Your task to perform on an android device: Open Youtube and go to "Your channel" Image 0: 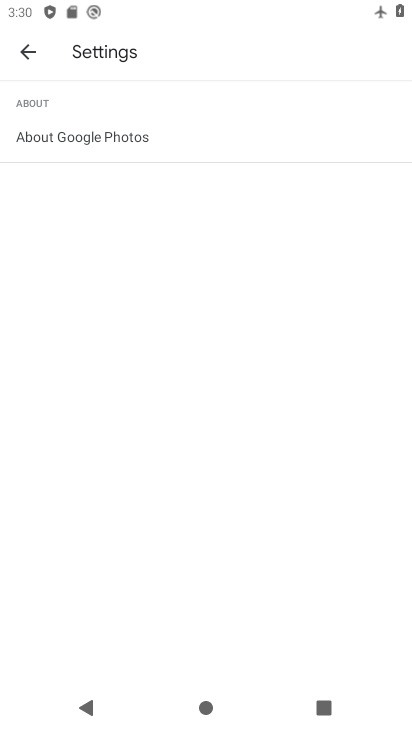
Step 0: press back button
Your task to perform on an android device: Open Youtube and go to "Your channel" Image 1: 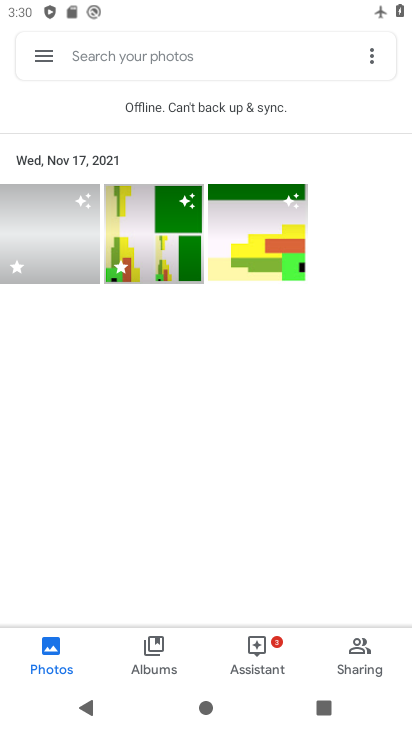
Step 1: press back button
Your task to perform on an android device: Open Youtube and go to "Your channel" Image 2: 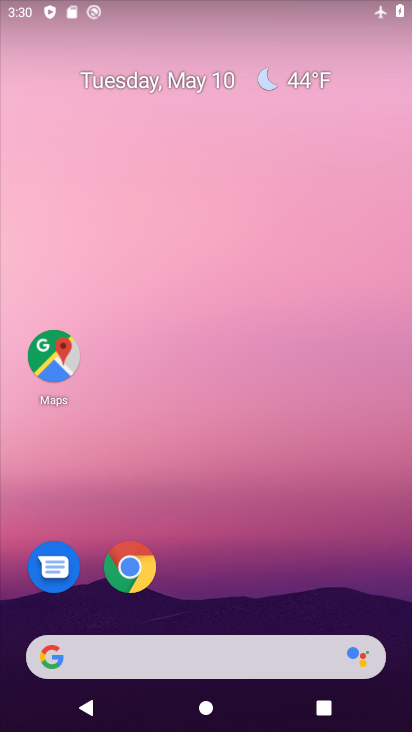
Step 2: drag from (255, 553) to (183, 56)
Your task to perform on an android device: Open Youtube and go to "Your channel" Image 3: 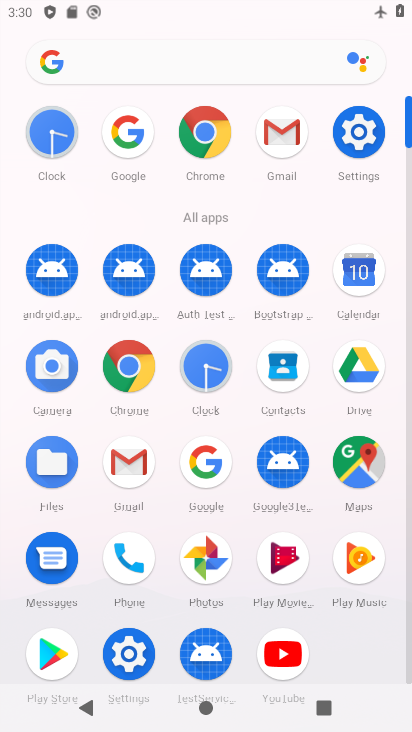
Step 3: drag from (236, 565) to (244, 290)
Your task to perform on an android device: Open Youtube and go to "Your channel" Image 4: 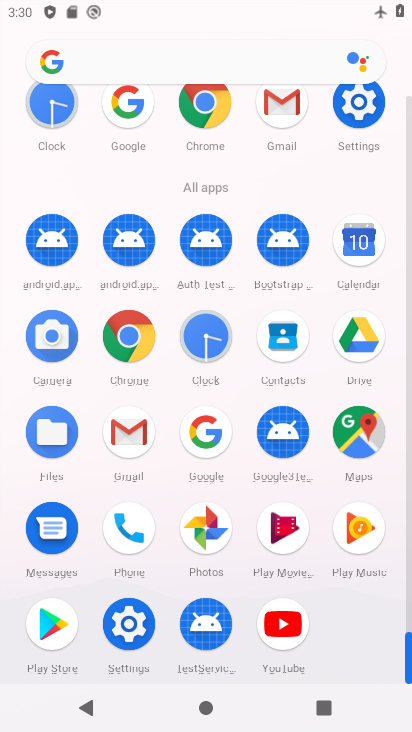
Step 4: click (280, 623)
Your task to perform on an android device: Open Youtube and go to "Your channel" Image 5: 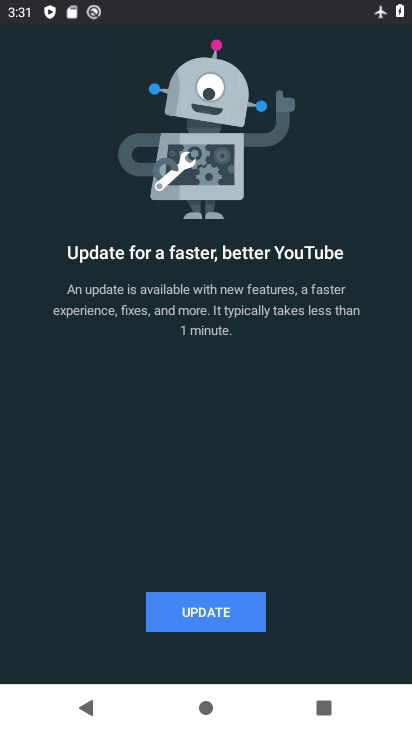
Step 5: click (211, 606)
Your task to perform on an android device: Open Youtube and go to "Your channel" Image 6: 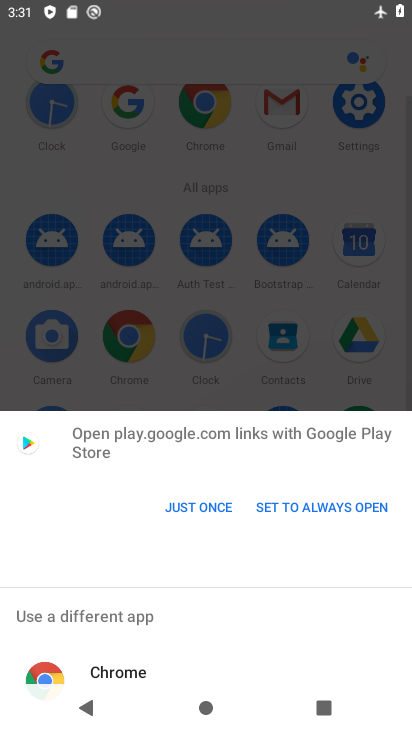
Step 6: click (200, 508)
Your task to perform on an android device: Open Youtube and go to "Your channel" Image 7: 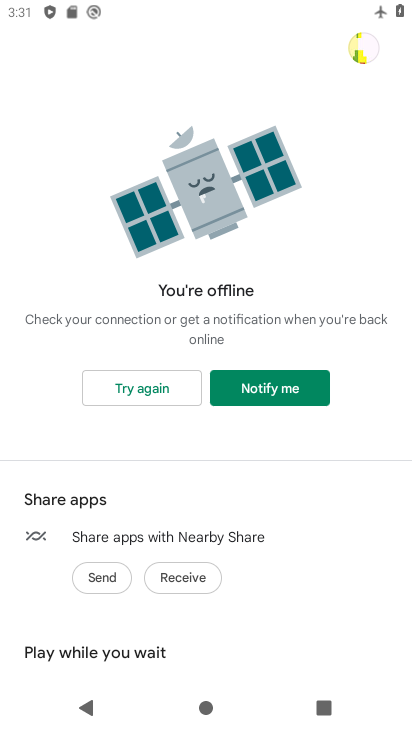
Step 7: click (134, 397)
Your task to perform on an android device: Open Youtube and go to "Your channel" Image 8: 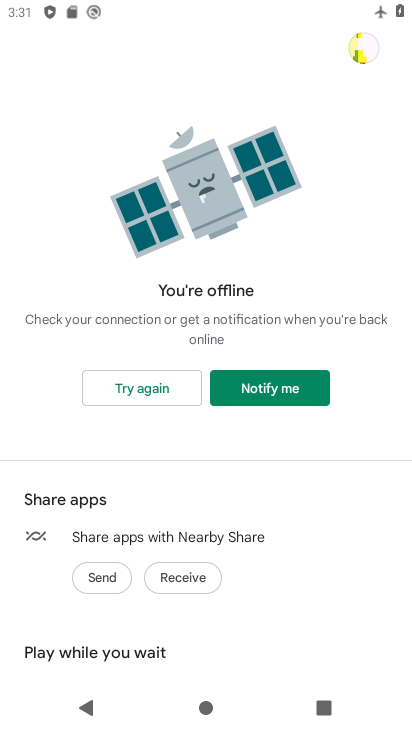
Step 8: press back button
Your task to perform on an android device: Open Youtube and go to "Your channel" Image 9: 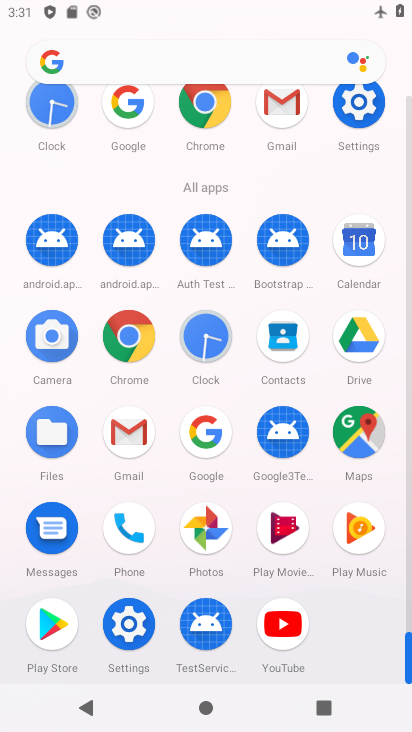
Step 9: click (356, 104)
Your task to perform on an android device: Open Youtube and go to "Your channel" Image 10: 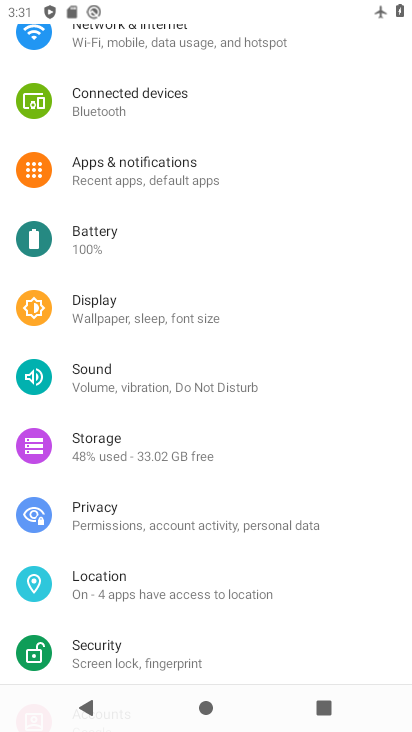
Step 10: drag from (157, 136) to (200, 267)
Your task to perform on an android device: Open Youtube and go to "Your channel" Image 11: 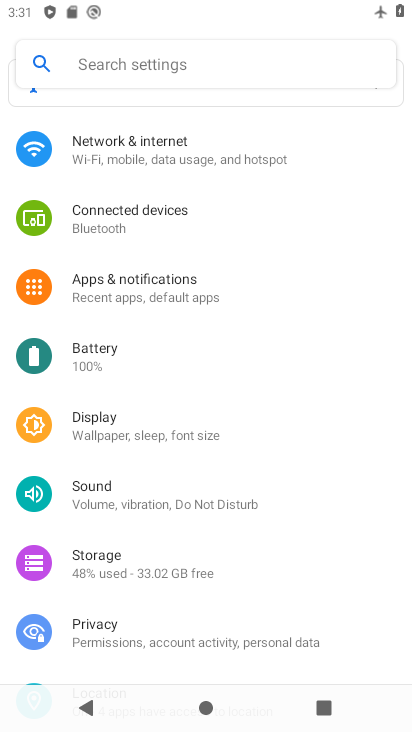
Step 11: drag from (198, 143) to (203, 319)
Your task to perform on an android device: Open Youtube and go to "Your channel" Image 12: 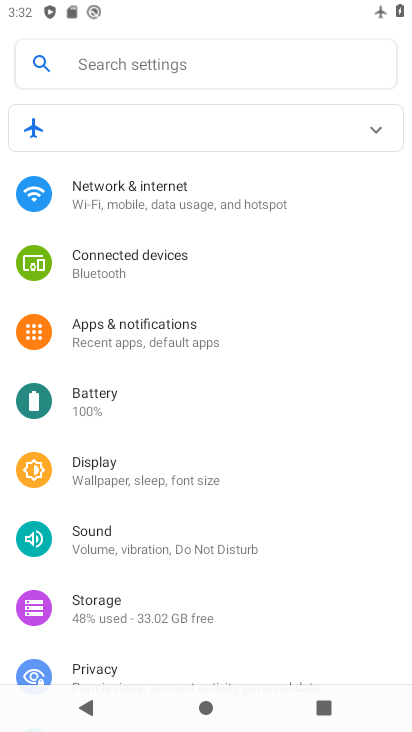
Step 12: click (140, 195)
Your task to perform on an android device: Open Youtube and go to "Your channel" Image 13: 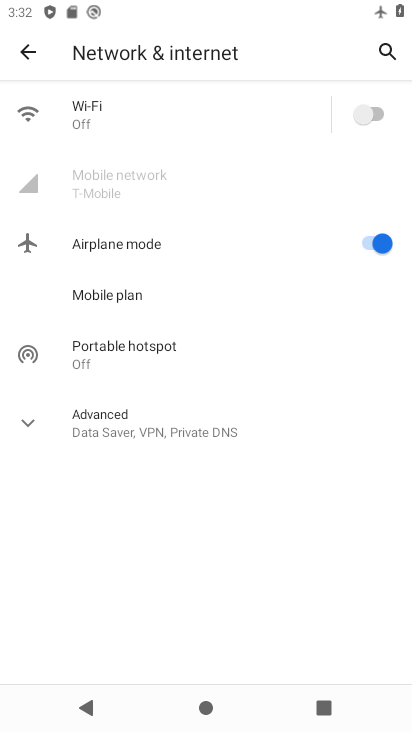
Step 13: click (387, 244)
Your task to perform on an android device: Open Youtube and go to "Your channel" Image 14: 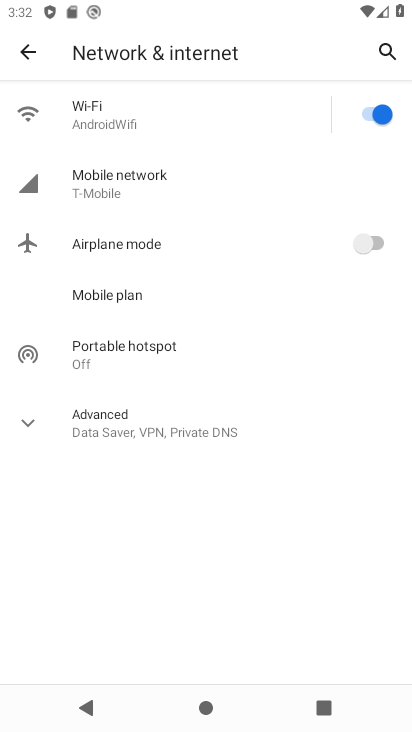
Step 14: press back button
Your task to perform on an android device: Open Youtube and go to "Your channel" Image 15: 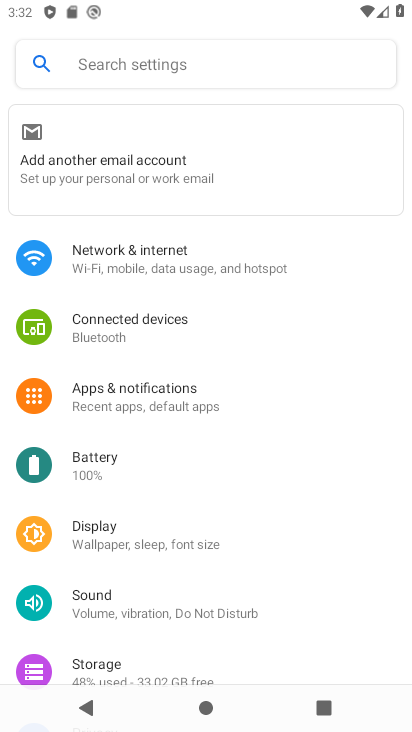
Step 15: press back button
Your task to perform on an android device: Open Youtube and go to "Your channel" Image 16: 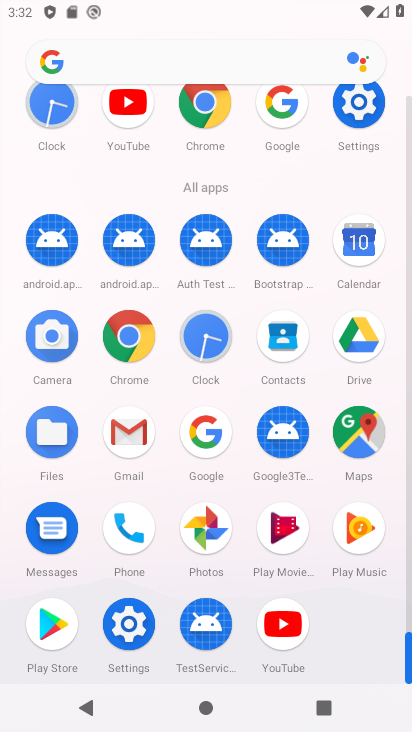
Step 16: click (127, 103)
Your task to perform on an android device: Open Youtube and go to "Your channel" Image 17: 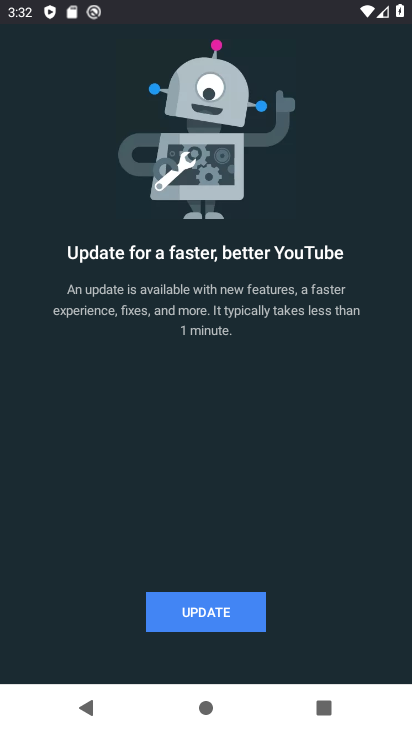
Step 17: click (197, 622)
Your task to perform on an android device: Open Youtube and go to "Your channel" Image 18: 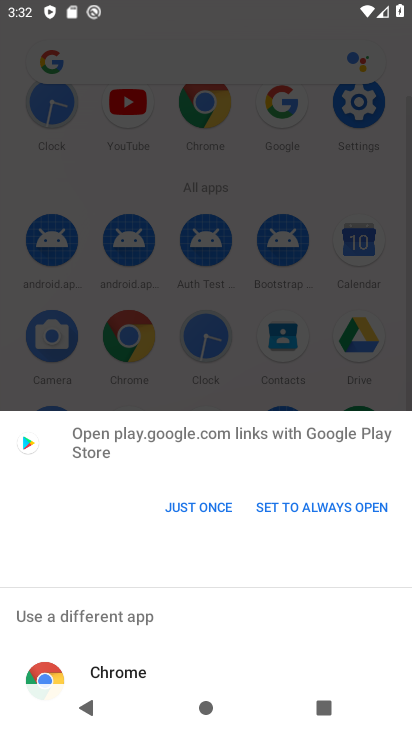
Step 18: click (207, 510)
Your task to perform on an android device: Open Youtube and go to "Your channel" Image 19: 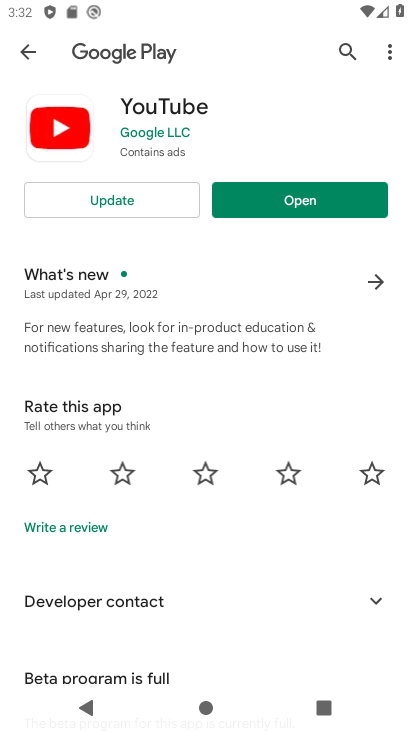
Step 19: click (114, 195)
Your task to perform on an android device: Open Youtube and go to "Your channel" Image 20: 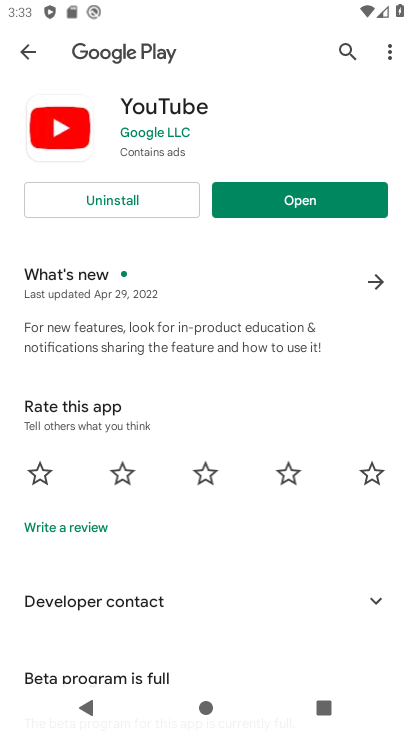
Step 20: click (302, 199)
Your task to perform on an android device: Open Youtube and go to "Your channel" Image 21: 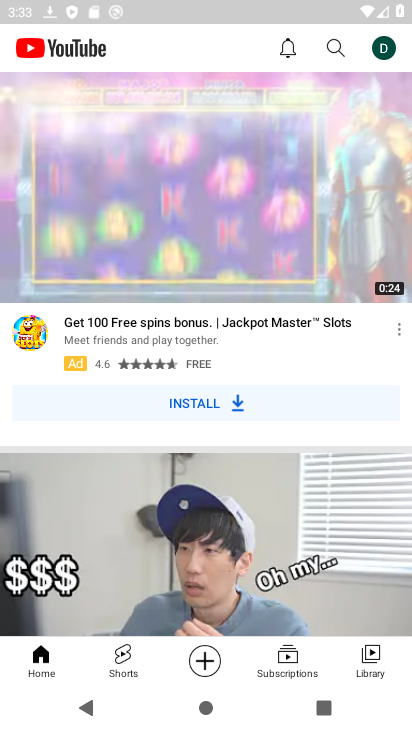
Step 21: click (386, 49)
Your task to perform on an android device: Open Youtube and go to "Your channel" Image 22: 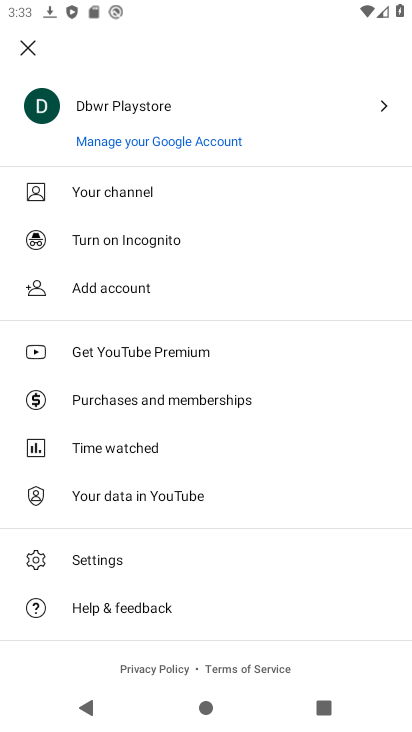
Step 22: click (146, 185)
Your task to perform on an android device: Open Youtube and go to "Your channel" Image 23: 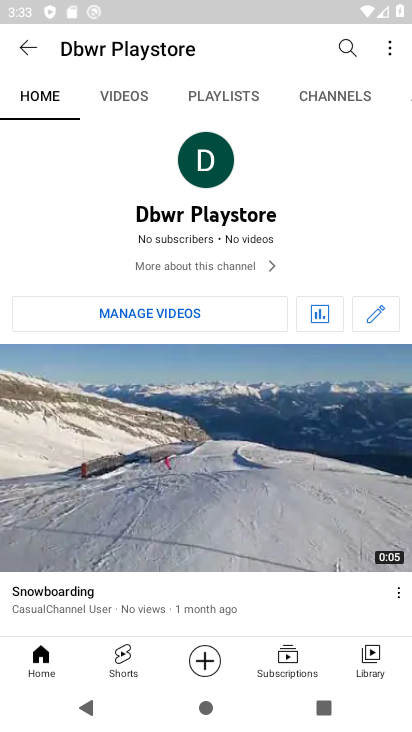
Step 23: task complete